Your task to perform on an android device: uninstall "Truecaller" Image 0: 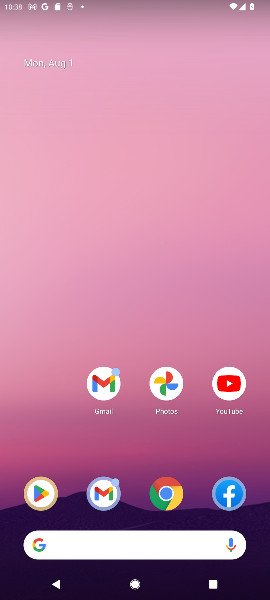
Step 0: task complete